Your task to perform on an android device: change your default location settings in chrome Image 0: 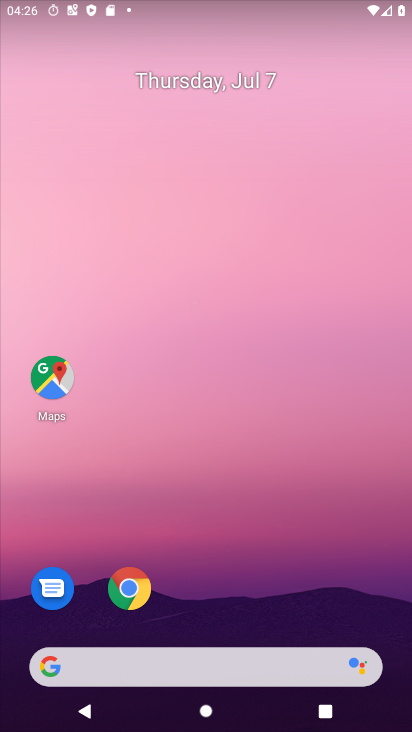
Step 0: drag from (226, 614) to (249, 134)
Your task to perform on an android device: change your default location settings in chrome Image 1: 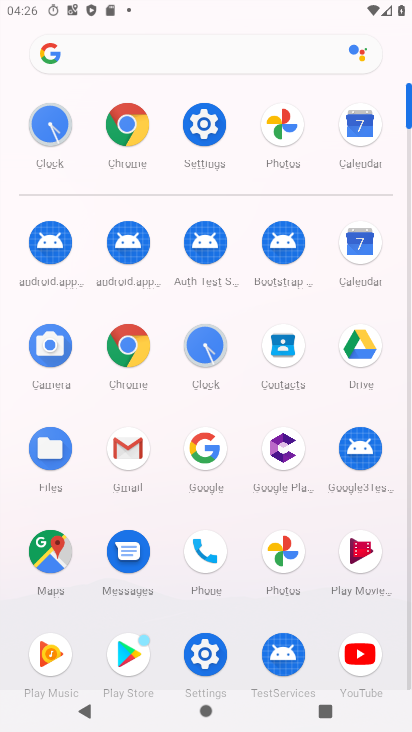
Step 1: click (130, 135)
Your task to perform on an android device: change your default location settings in chrome Image 2: 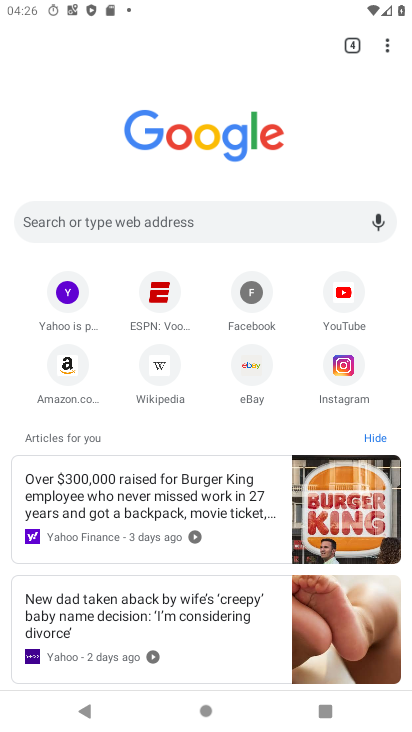
Step 2: drag from (393, 45) to (217, 382)
Your task to perform on an android device: change your default location settings in chrome Image 3: 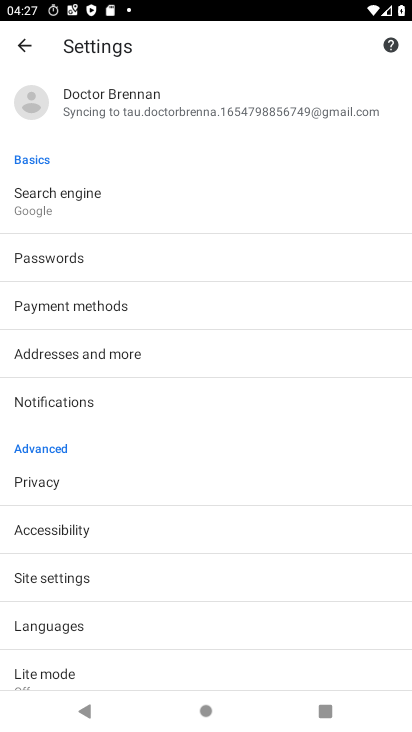
Step 3: click (52, 577)
Your task to perform on an android device: change your default location settings in chrome Image 4: 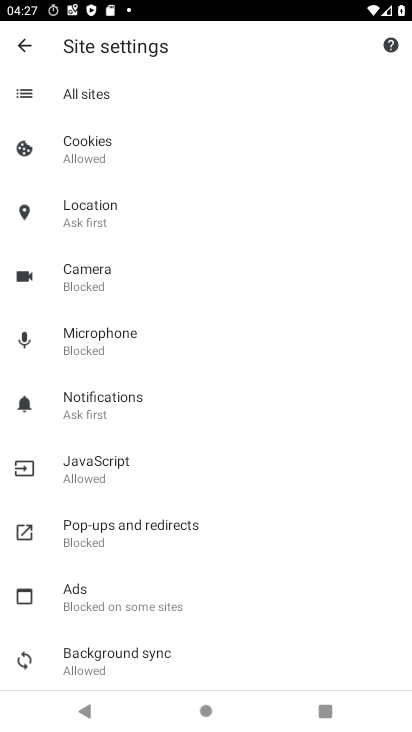
Step 4: click (90, 218)
Your task to perform on an android device: change your default location settings in chrome Image 5: 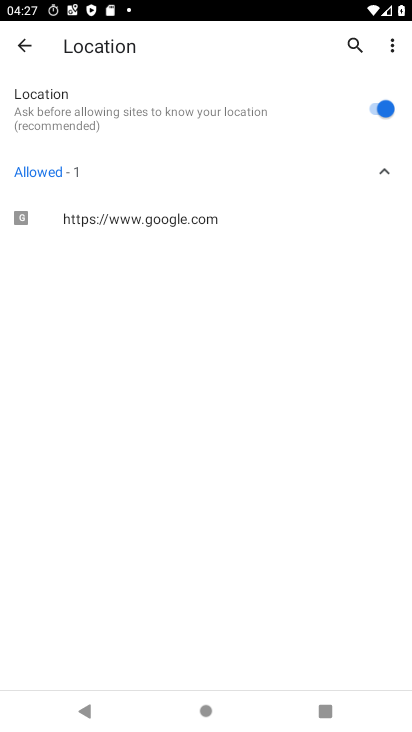
Step 5: click (395, 111)
Your task to perform on an android device: change your default location settings in chrome Image 6: 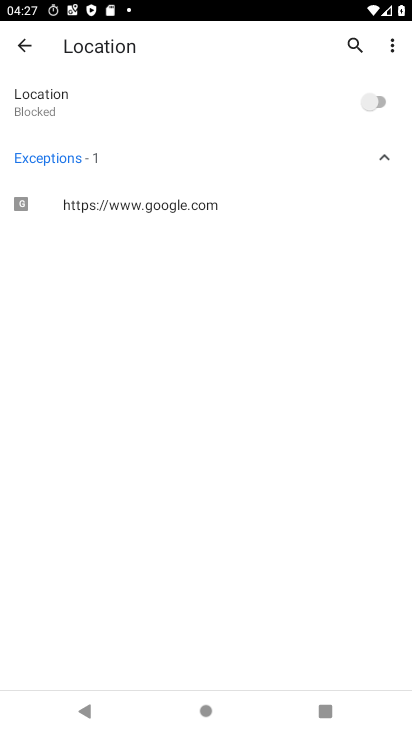
Step 6: task complete